Your task to perform on an android device: Open Chrome and go to the settings page Image 0: 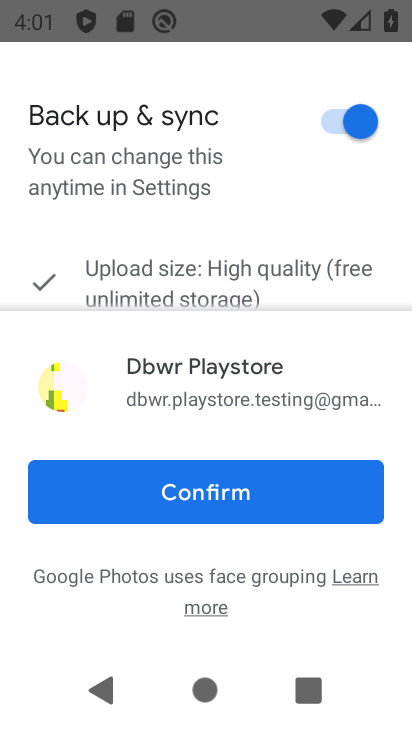
Step 0: click (299, 511)
Your task to perform on an android device: Open Chrome and go to the settings page Image 1: 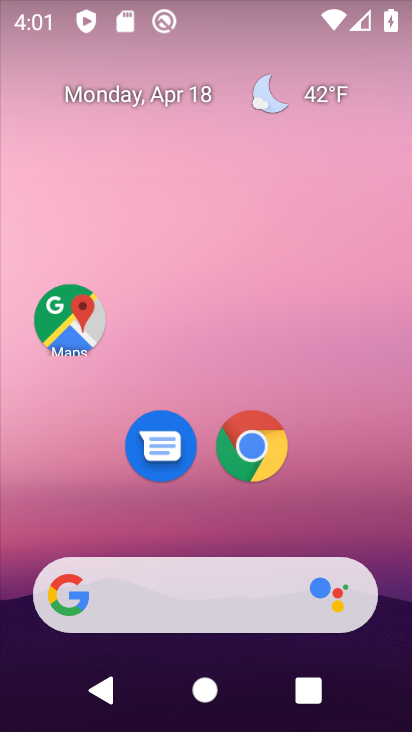
Step 1: drag from (353, 436) to (288, 1)
Your task to perform on an android device: Open Chrome and go to the settings page Image 2: 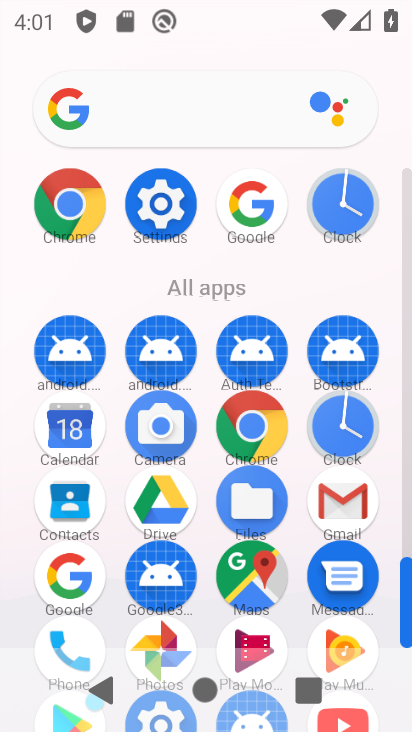
Step 2: click (260, 416)
Your task to perform on an android device: Open Chrome and go to the settings page Image 3: 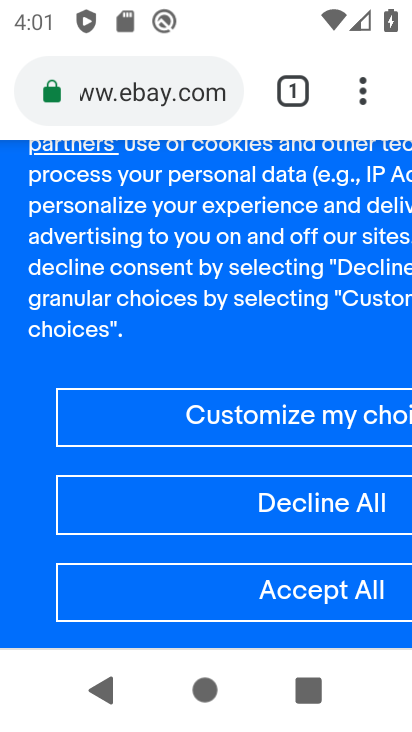
Step 3: click (360, 85)
Your task to perform on an android device: Open Chrome and go to the settings page Image 4: 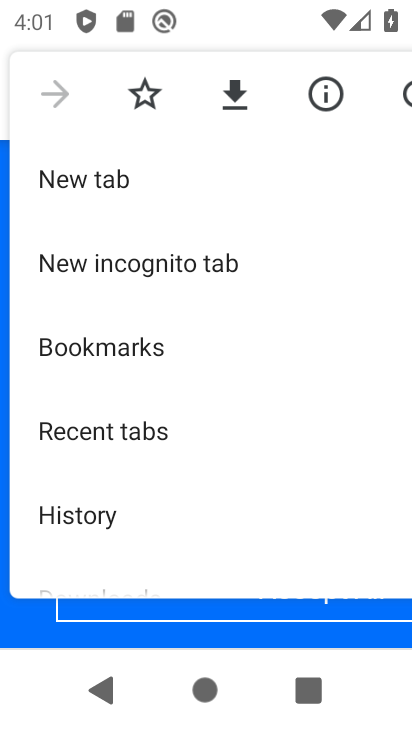
Step 4: drag from (128, 482) to (169, 82)
Your task to perform on an android device: Open Chrome and go to the settings page Image 5: 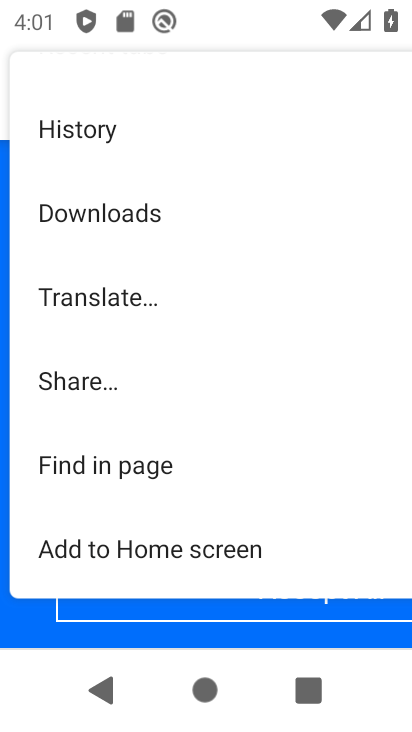
Step 5: drag from (171, 554) to (239, 204)
Your task to perform on an android device: Open Chrome and go to the settings page Image 6: 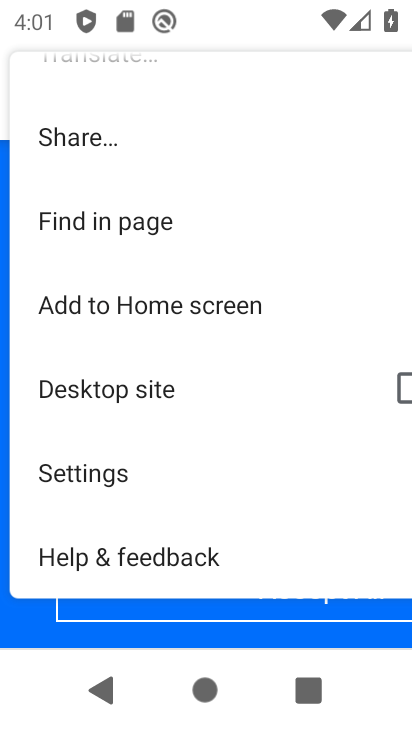
Step 6: click (95, 466)
Your task to perform on an android device: Open Chrome and go to the settings page Image 7: 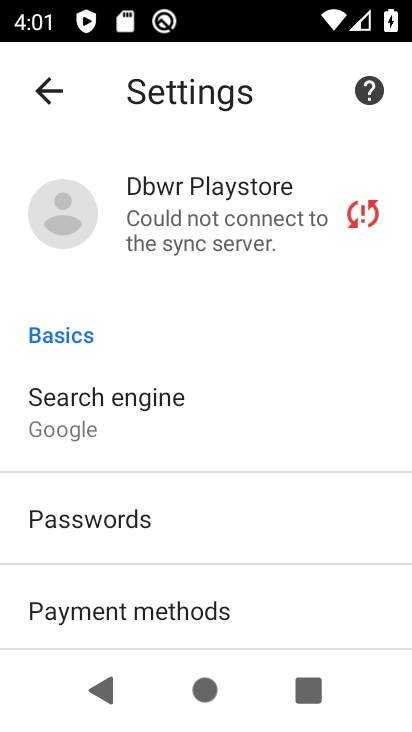
Step 7: task complete